Your task to perform on an android device: turn off sleep mode Image 0: 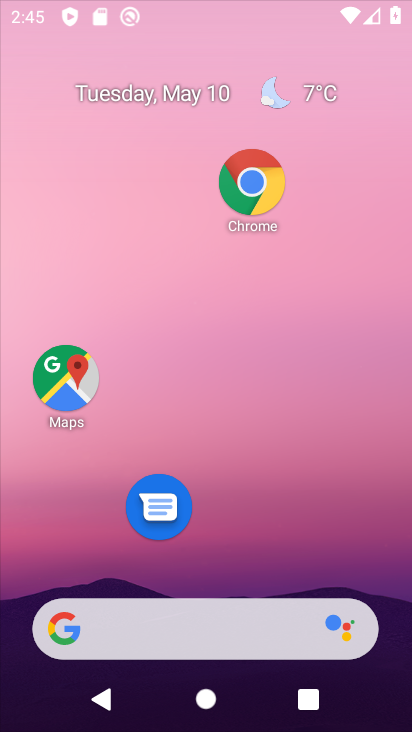
Step 0: drag from (345, 491) to (311, 205)
Your task to perform on an android device: turn off sleep mode Image 1: 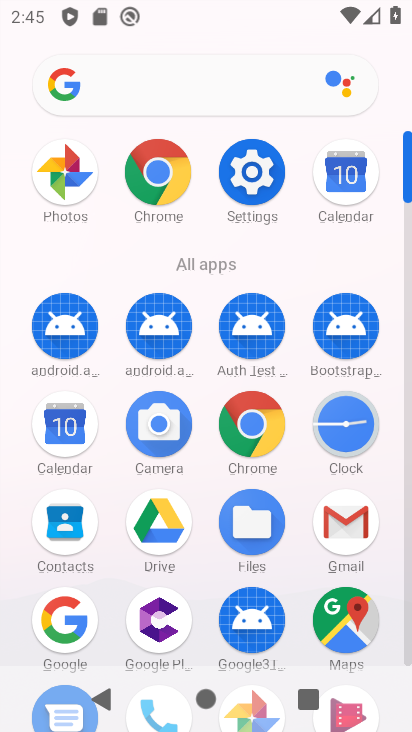
Step 1: click (256, 157)
Your task to perform on an android device: turn off sleep mode Image 2: 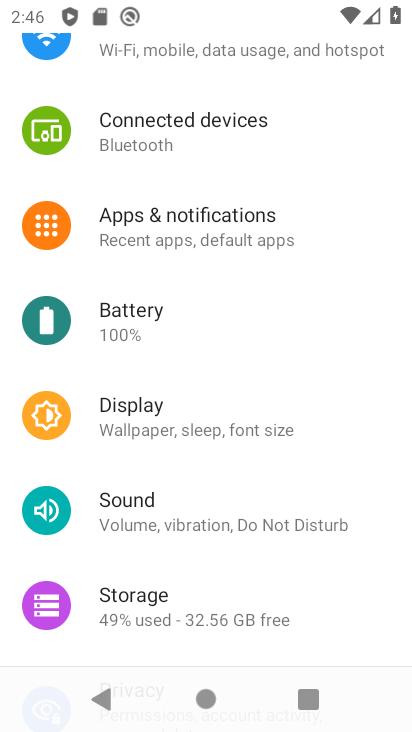
Step 2: drag from (196, 450) to (194, 263)
Your task to perform on an android device: turn off sleep mode Image 3: 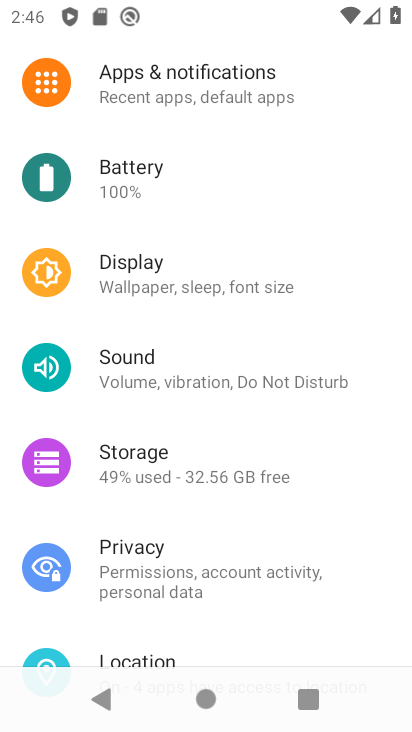
Step 3: click (194, 263)
Your task to perform on an android device: turn off sleep mode Image 4: 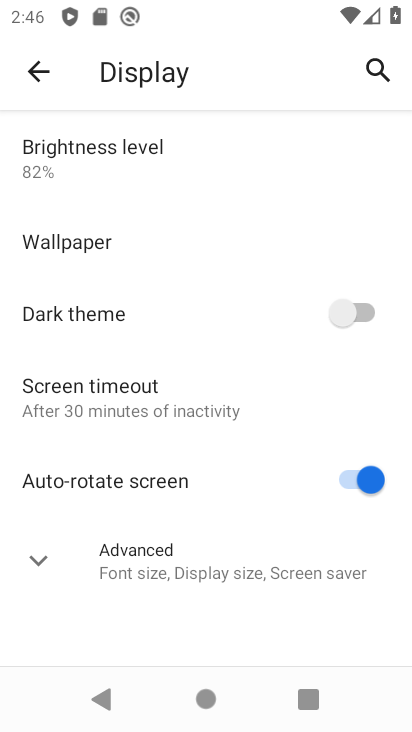
Step 4: click (191, 404)
Your task to perform on an android device: turn off sleep mode Image 5: 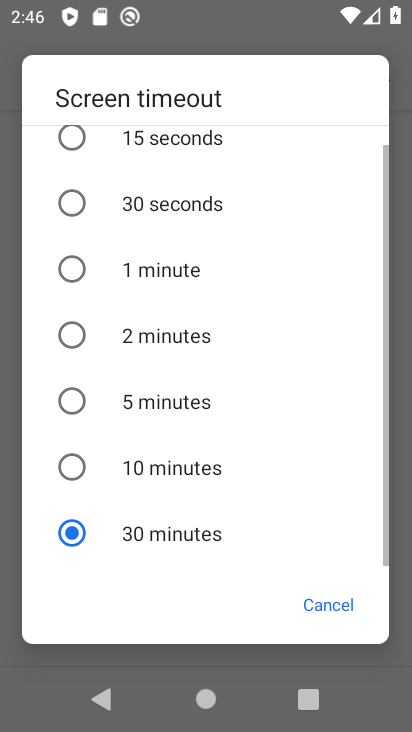
Step 5: click (191, 287)
Your task to perform on an android device: turn off sleep mode Image 6: 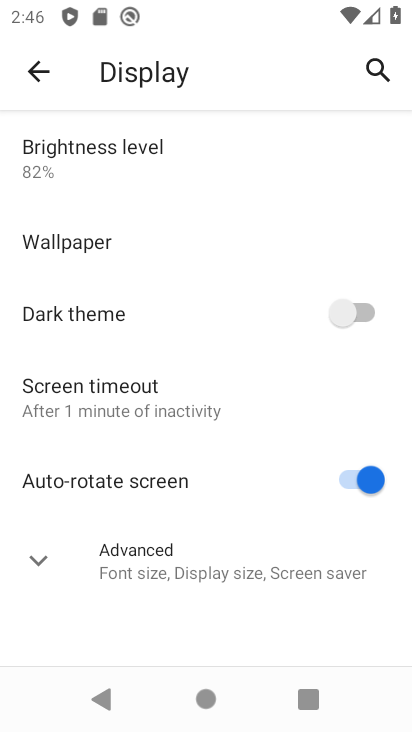
Step 6: task complete